Your task to perform on an android device: change the upload size in google photos Image 0: 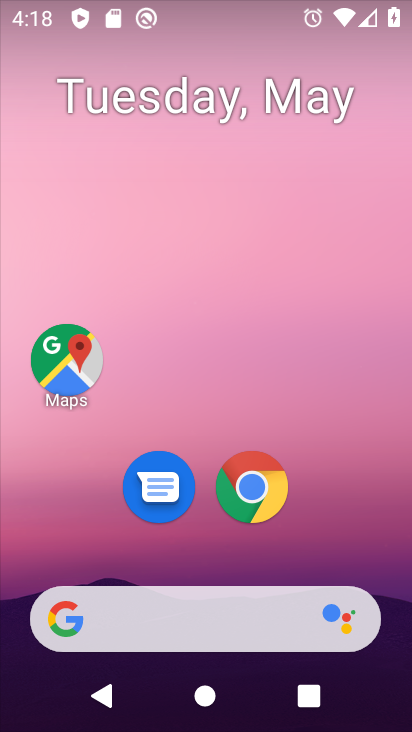
Step 0: drag from (353, 524) to (174, 0)
Your task to perform on an android device: change the upload size in google photos Image 1: 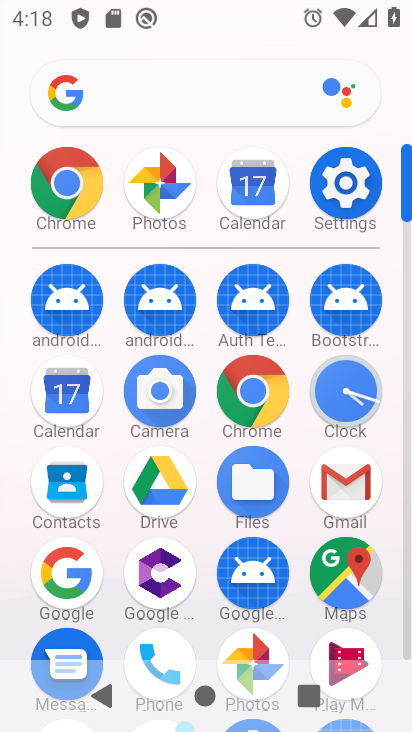
Step 1: click (163, 168)
Your task to perform on an android device: change the upload size in google photos Image 2: 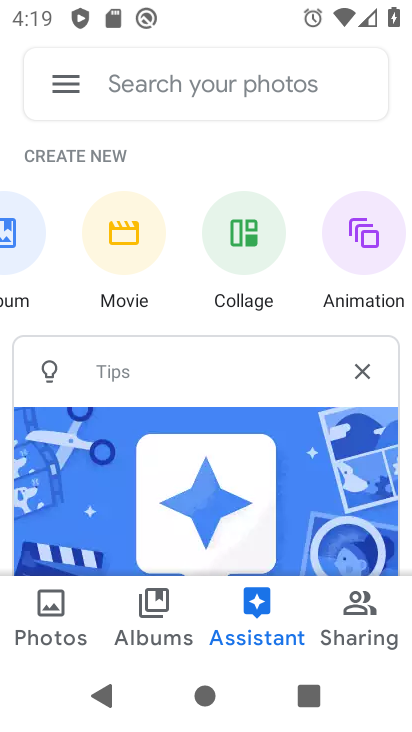
Step 2: click (74, 72)
Your task to perform on an android device: change the upload size in google photos Image 3: 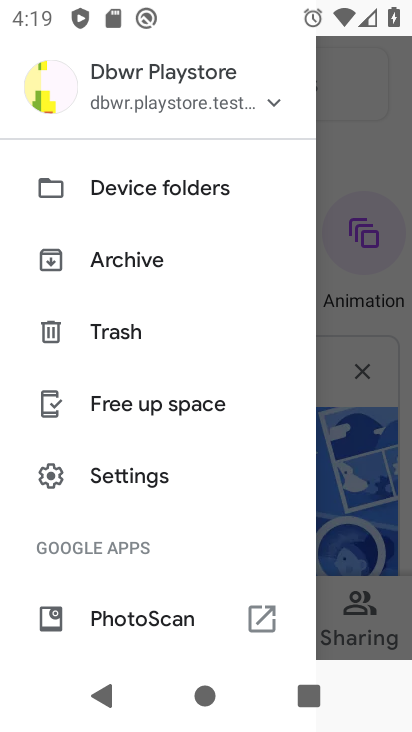
Step 3: click (138, 478)
Your task to perform on an android device: change the upload size in google photos Image 4: 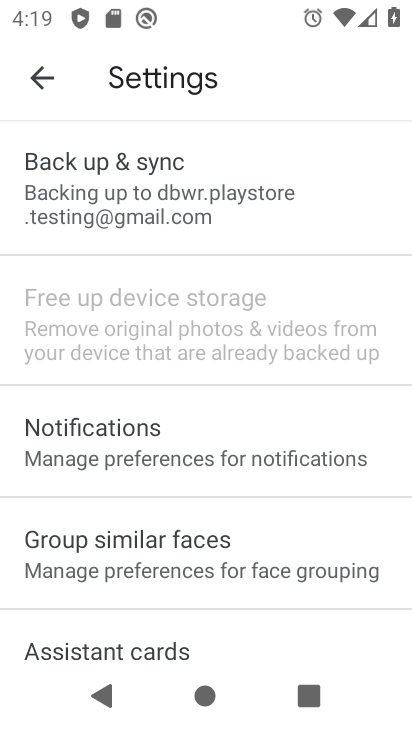
Step 4: click (206, 176)
Your task to perform on an android device: change the upload size in google photos Image 5: 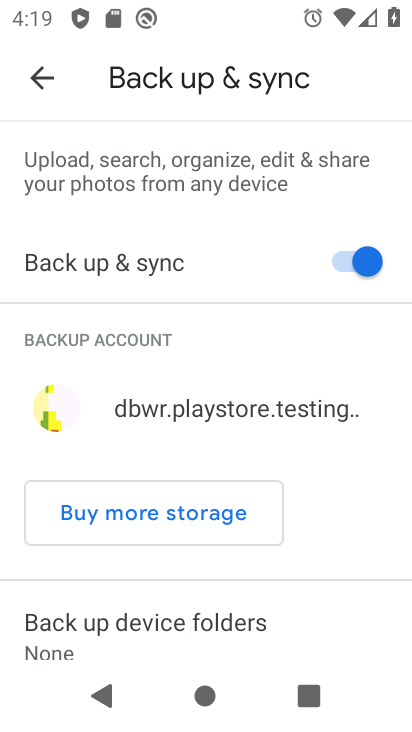
Step 5: drag from (252, 524) to (239, 96)
Your task to perform on an android device: change the upload size in google photos Image 6: 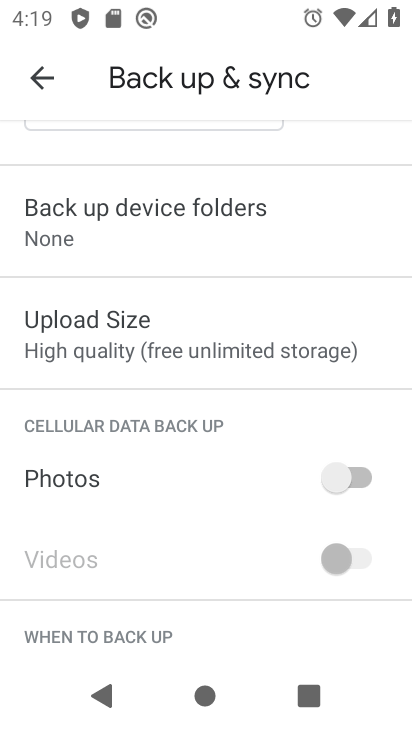
Step 6: click (204, 346)
Your task to perform on an android device: change the upload size in google photos Image 7: 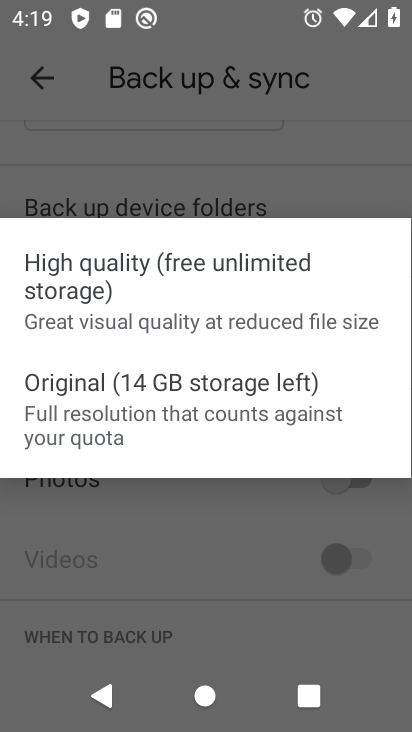
Step 7: click (143, 398)
Your task to perform on an android device: change the upload size in google photos Image 8: 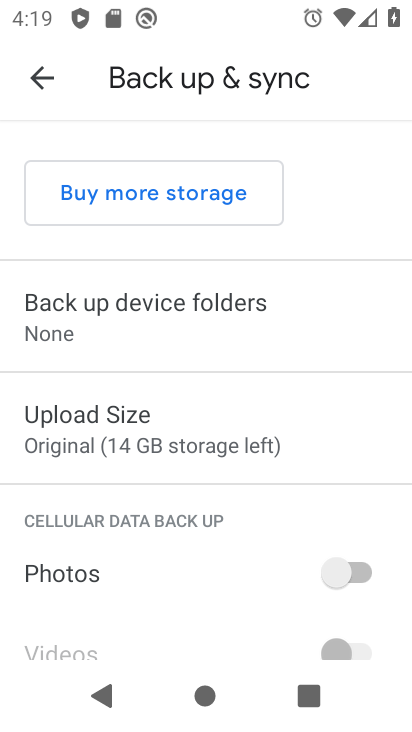
Step 8: task complete